Your task to perform on an android device: Open the Play Movies app and select the watchlist tab. Image 0: 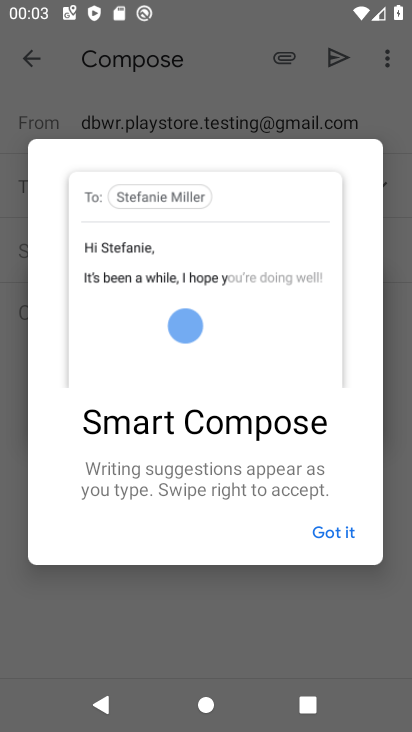
Step 0: press home button
Your task to perform on an android device: Open the Play Movies app and select the watchlist tab. Image 1: 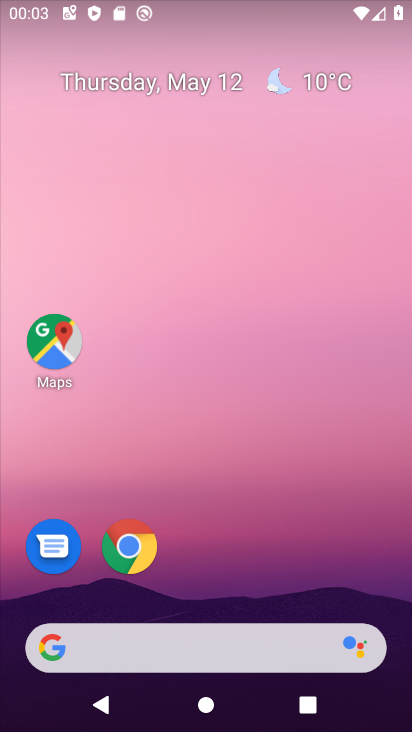
Step 1: drag from (153, 596) to (194, 203)
Your task to perform on an android device: Open the Play Movies app and select the watchlist tab. Image 2: 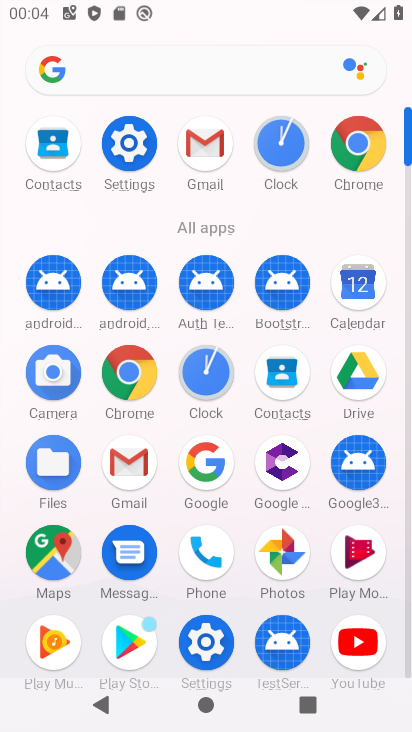
Step 2: drag from (237, 615) to (256, 405)
Your task to perform on an android device: Open the Play Movies app and select the watchlist tab. Image 3: 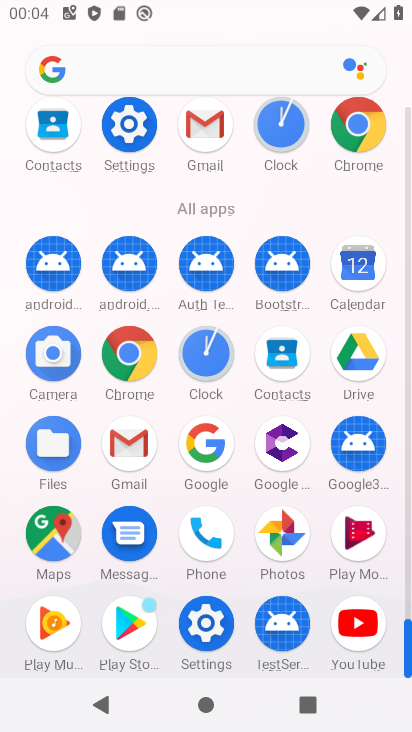
Step 3: click (359, 529)
Your task to perform on an android device: Open the Play Movies app and select the watchlist tab. Image 4: 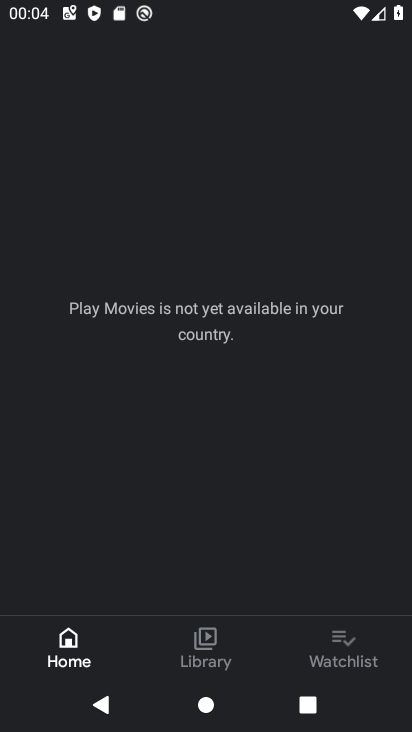
Step 4: click (337, 657)
Your task to perform on an android device: Open the Play Movies app and select the watchlist tab. Image 5: 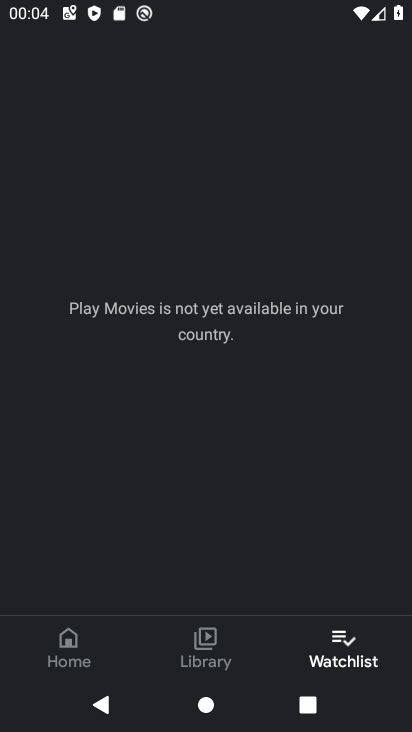
Step 5: task complete